Your task to perform on an android device: find which apps use the phone's location Image 0: 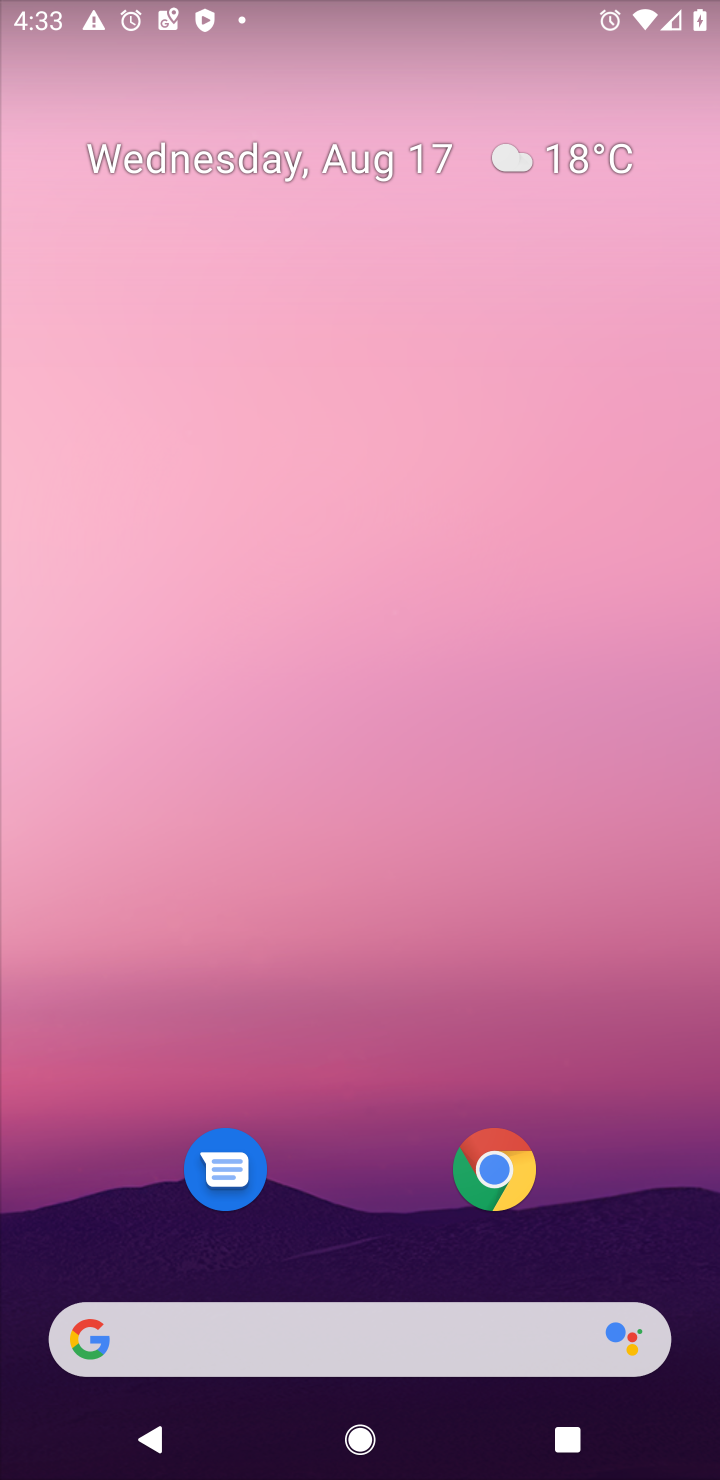
Step 0: drag from (405, 920) to (477, 153)
Your task to perform on an android device: find which apps use the phone's location Image 1: 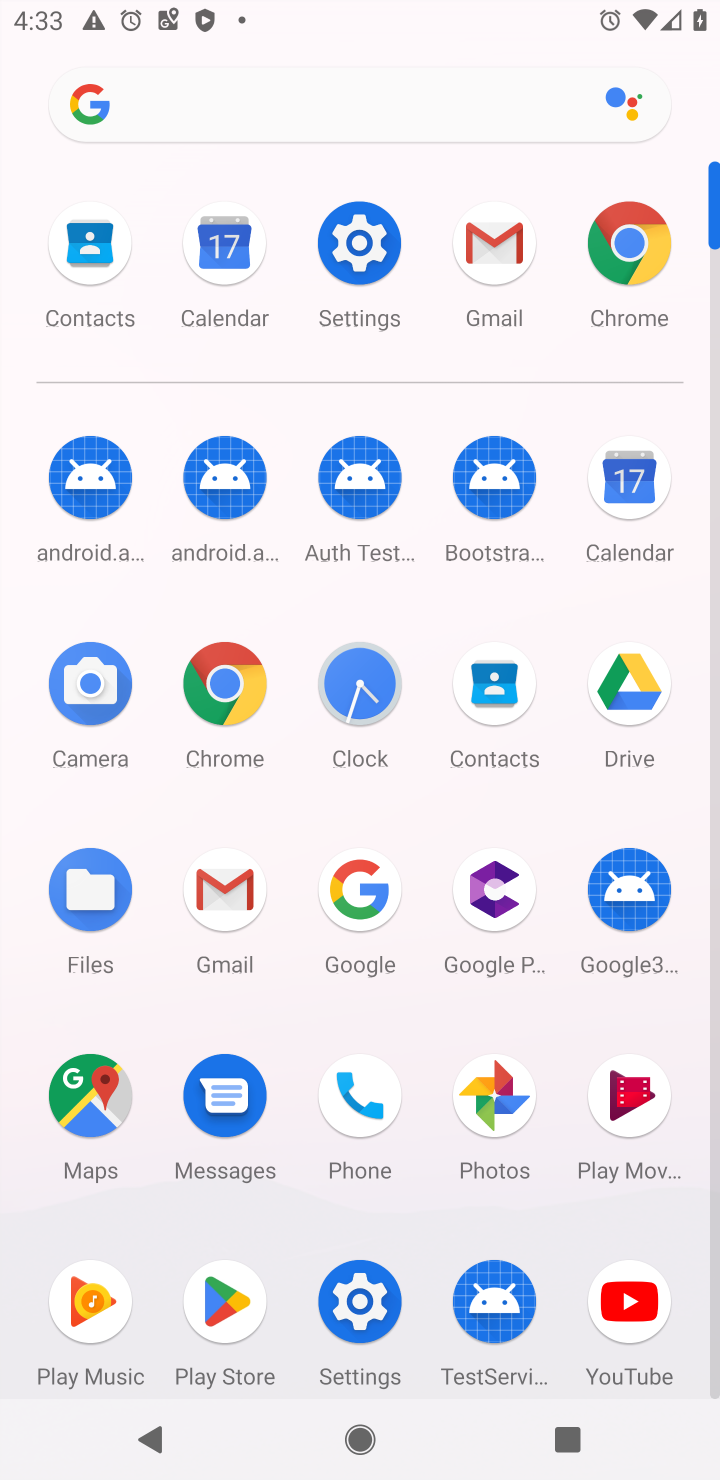
Step 1: click (366, 1089)
Your task to perform on an android device: find which apps use the phone's location Image 2: 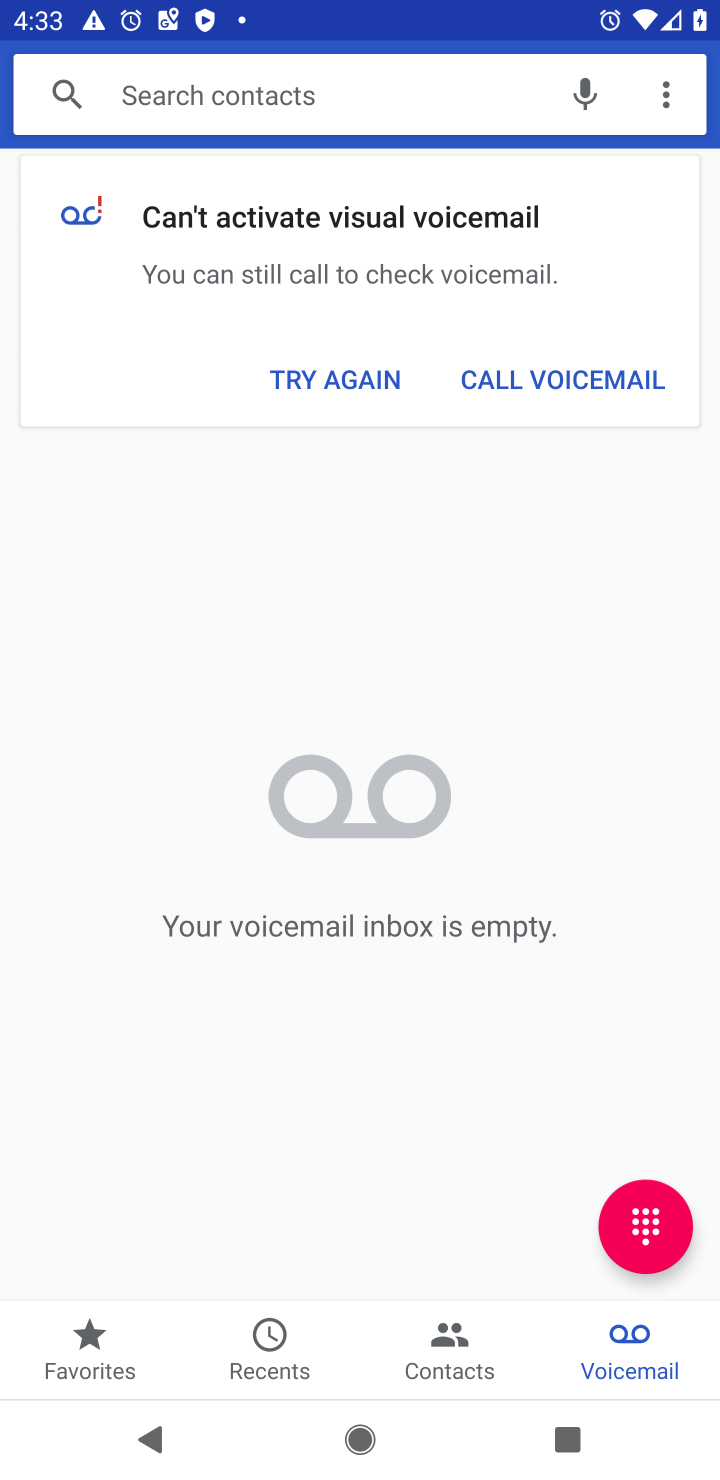
Step 2: press home button
Your task to perform on an android device: find which apps use the phone's location Image 3: 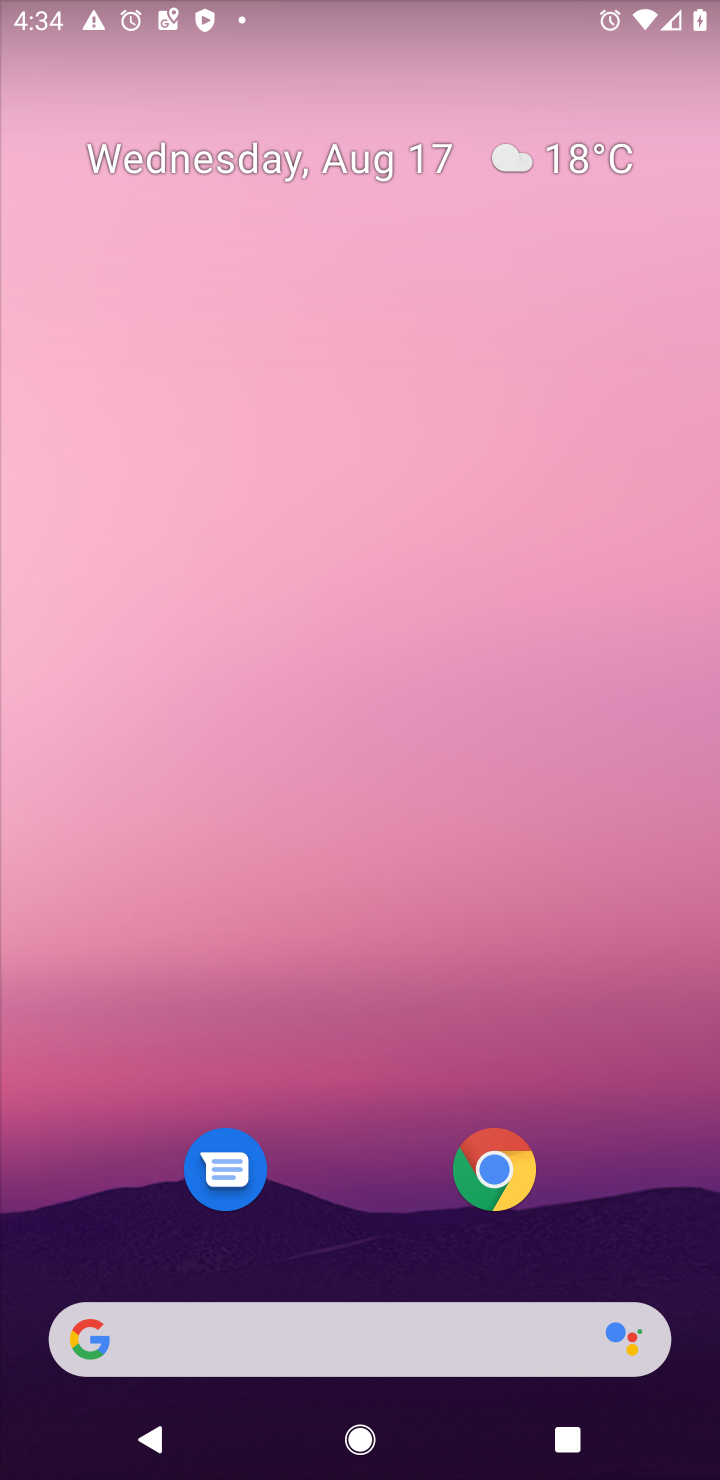
Step 3: drag from (380, 1193) to (452, 132)
Your task to perform on an android device: find which apps use the phone's location Image 4: 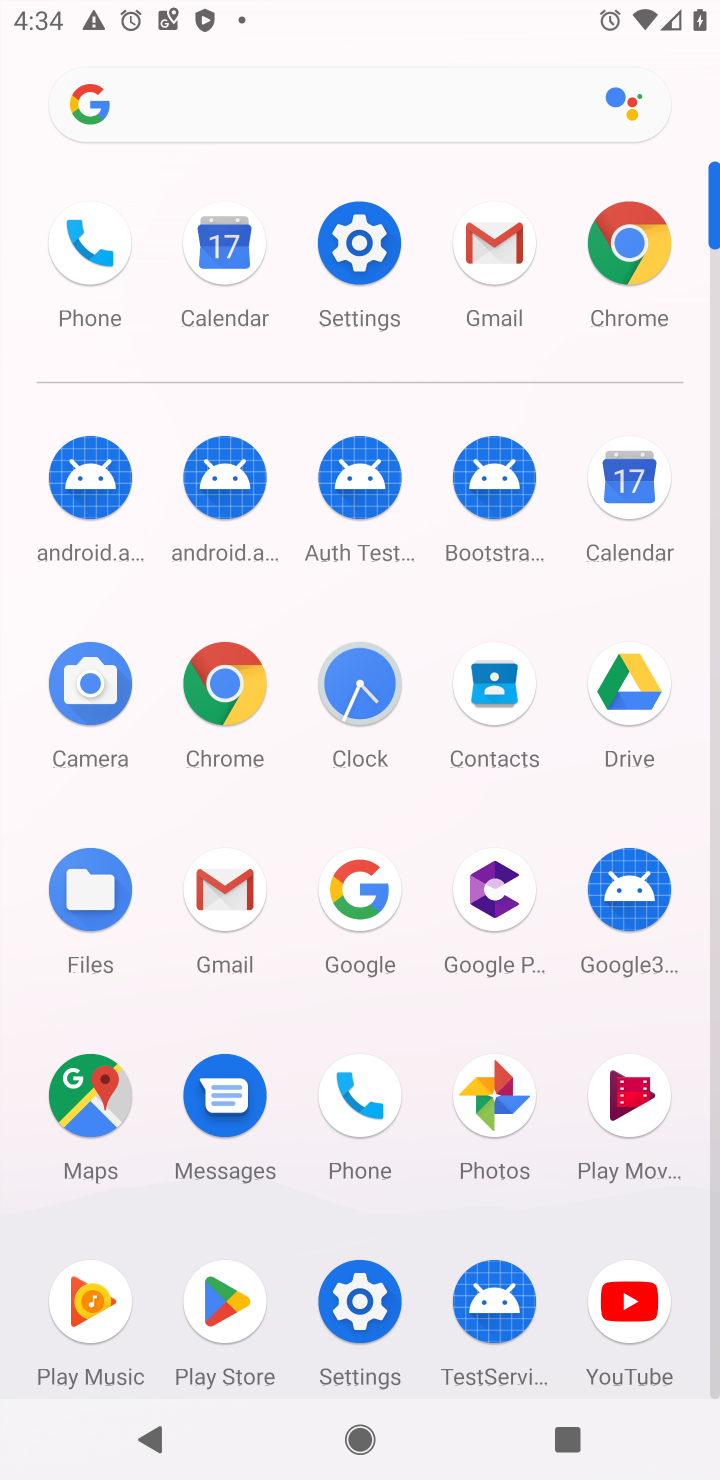
Step 4: click (350, 1099)
Your task to perform on an android device: find which apps use the phone's location Image 5: 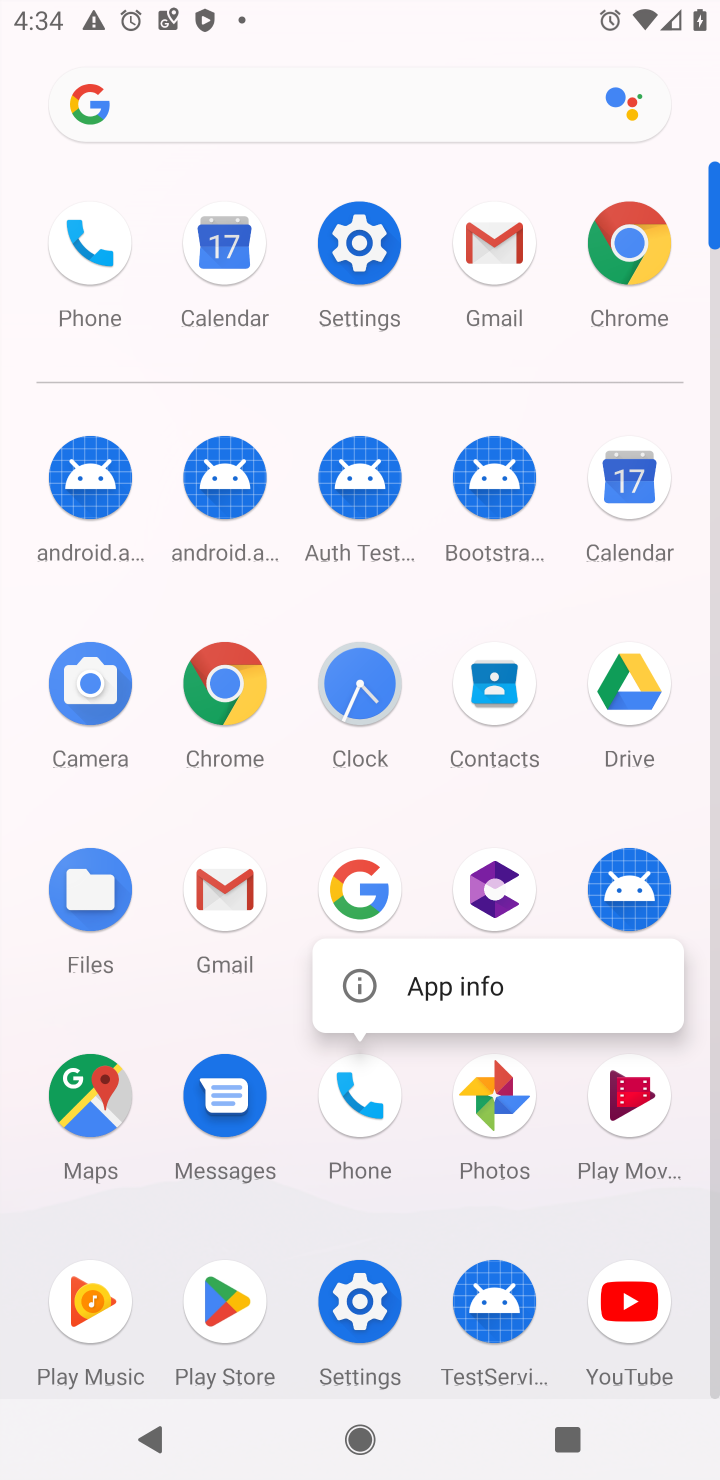
Step 5: click (442, 996)
Your task to perform on an android device: find which apps use the phone's location Image 6: 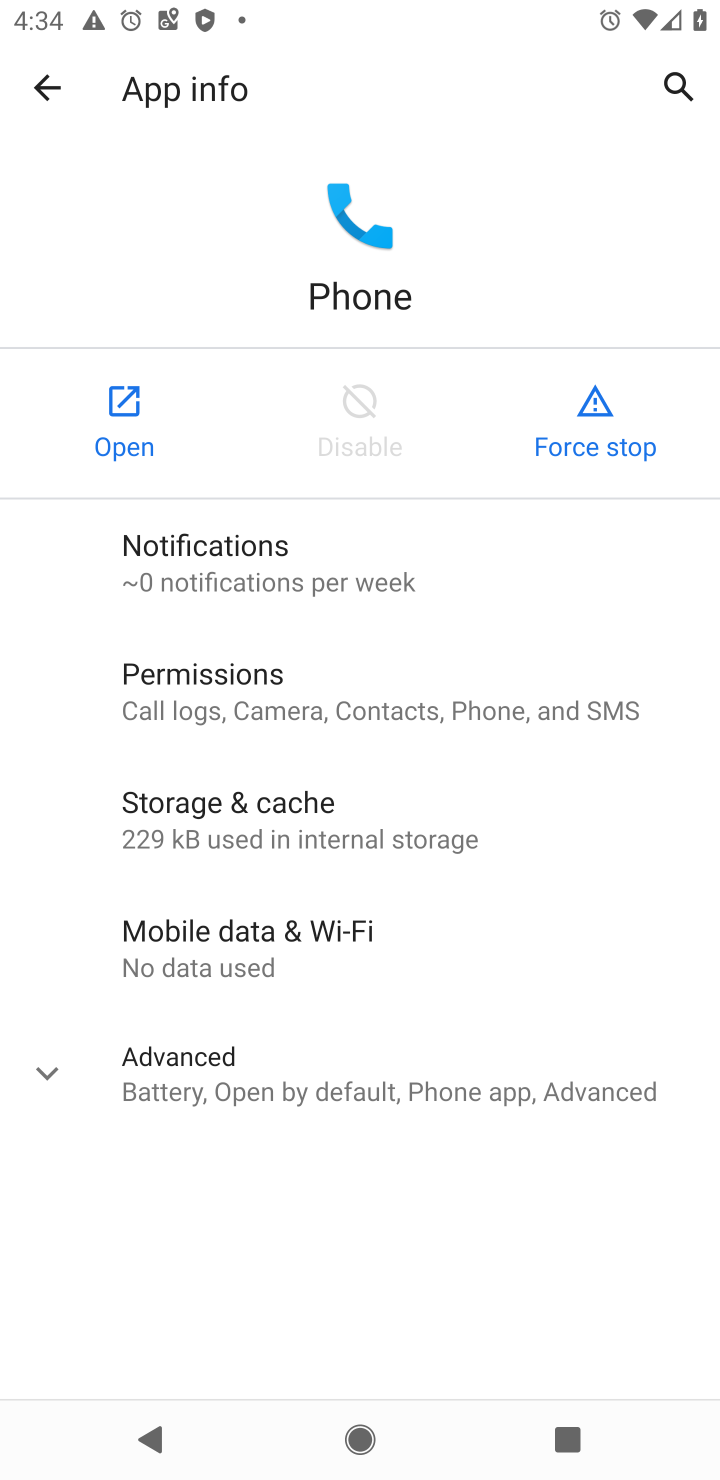
Step 6: click (206, 702)
Your task to perform on an android device: find which apps use the phone's location Image 7: 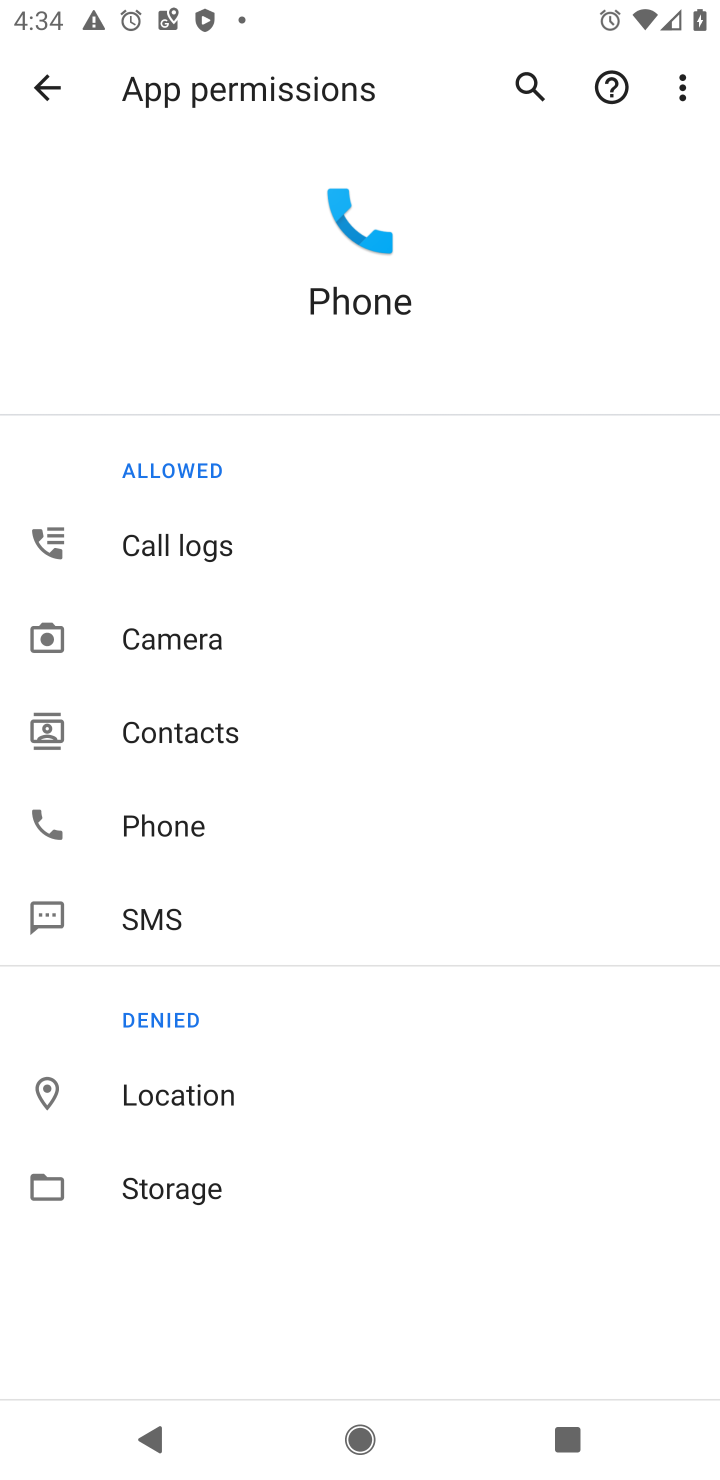
Step 7: click (171, 1092)
Your task to perform on an android device: find which apps use the phone's location Image 8: 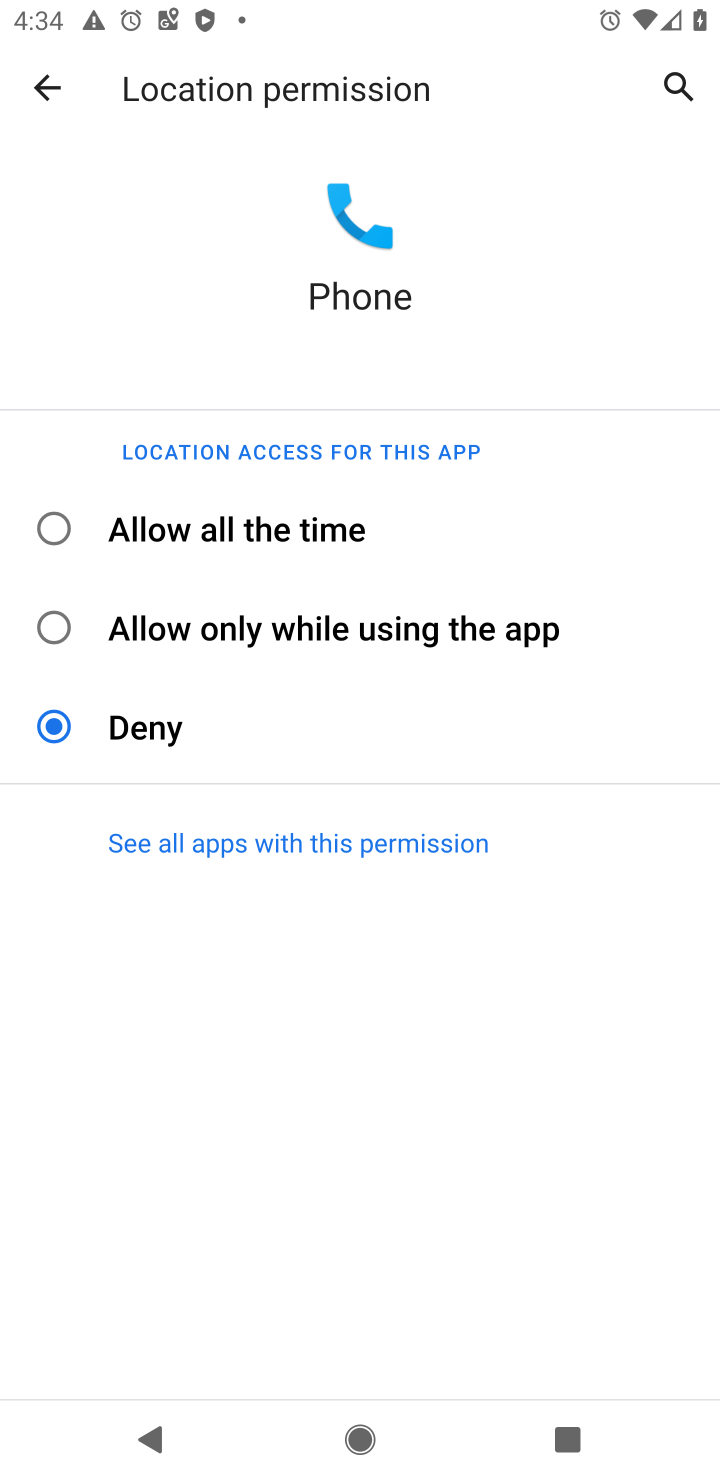
Step 8: task complete